Your task to perform on an android device: all mails in gmail Image 0: 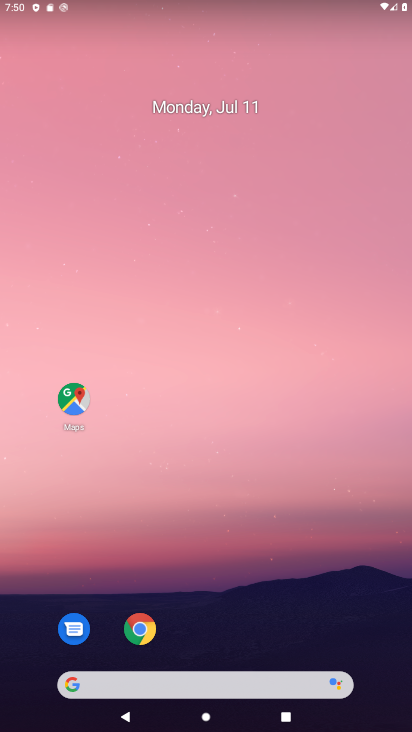
Step 0: drag from (232, 641) to (277, 130)
Your task to perform on an android device: all mails in gmail Image 1: 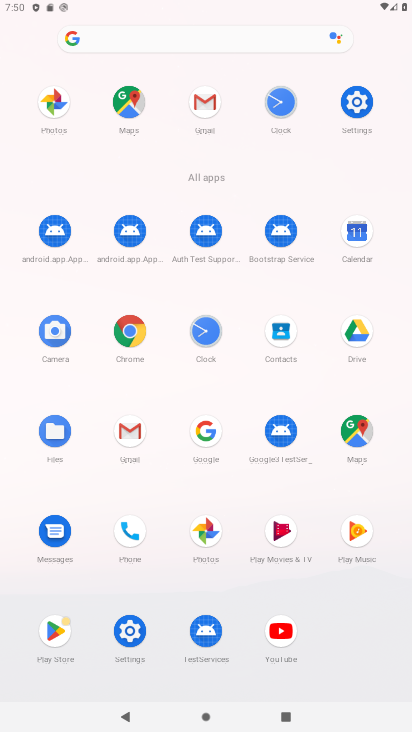
Step 1: click (202, 96)
Your task to perform on an android device: all mails in gmail Image 2: 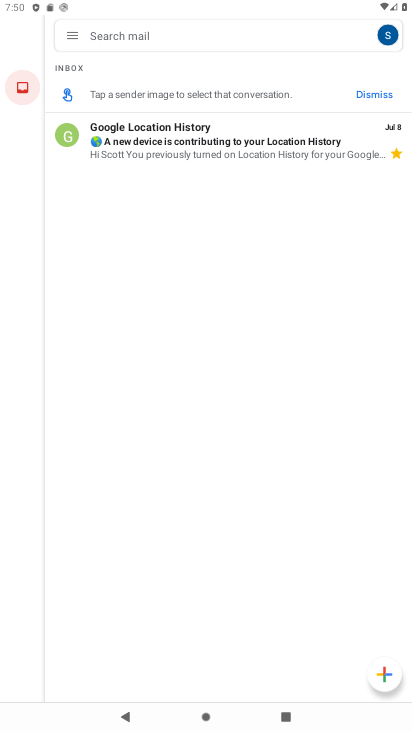
Step 2: click (76, 32)
Your task to perform on an android device: all mails in gmail Image 3: 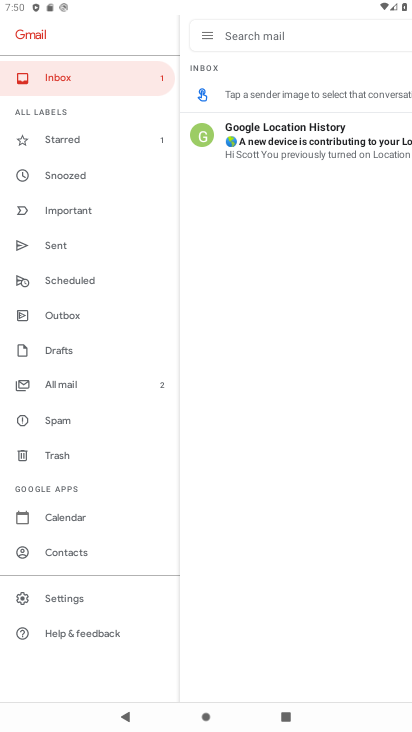
Step 3: click (43, 379)
Your task to perform on an android device: all mails in gmail Image 4: 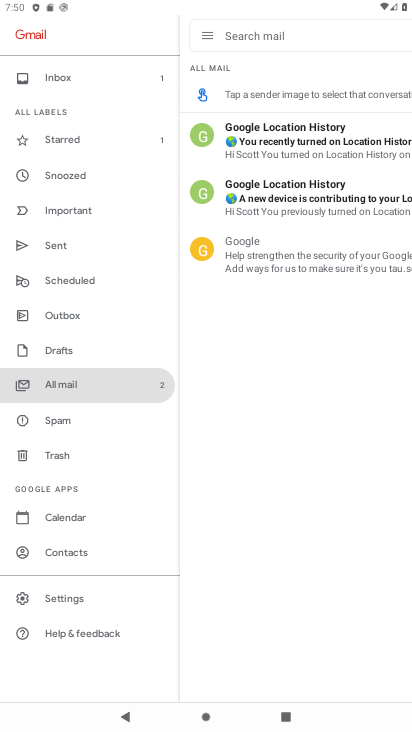
Step 4: task complete